Your task to perform on an android device: set the stopwatch Image 0: 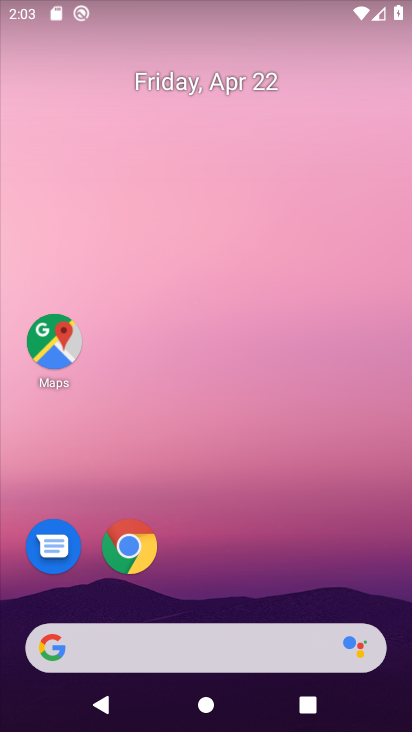
Step 0: drag from (238, 391) to (247, 266)
Your task to perform on an android device: set the stopwatch Image 1: 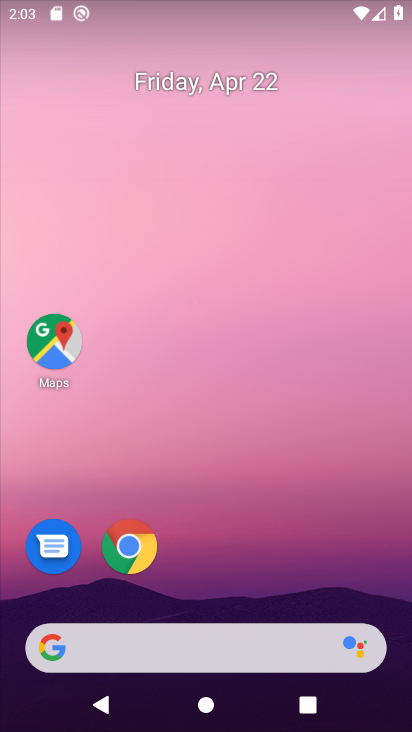
Step 1: drag from (217, 502) to (87, 148)
Your task to perform on an android device: set the stopwatch Image 2: 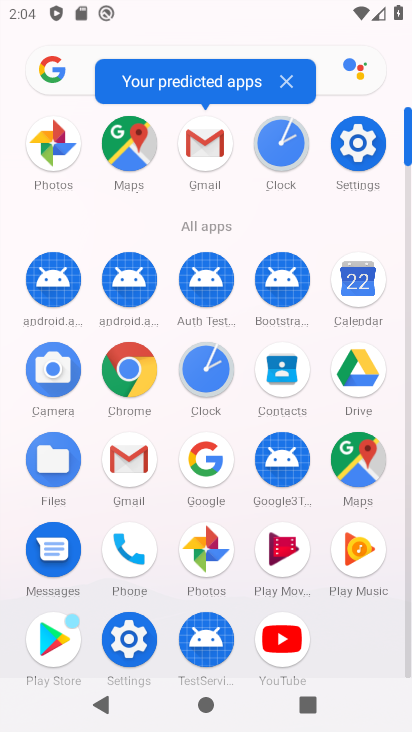
Step 2: click (358, 137)
Your task to perform on an android device: set the stopwatch Image 3: 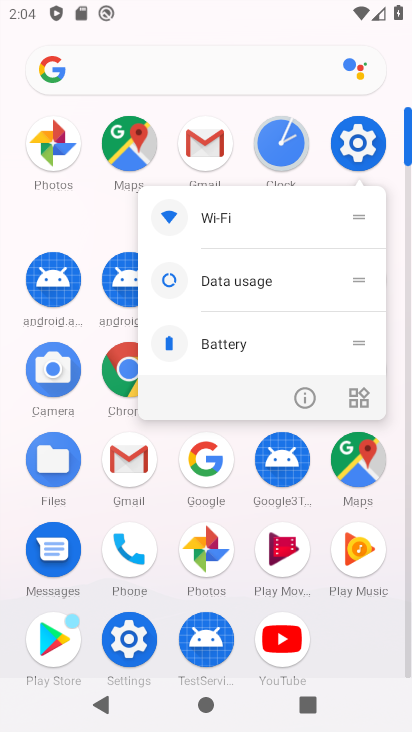
Step 3: click (350, 650)
Your task to perform on an android device: set the stopwatch Image 4: 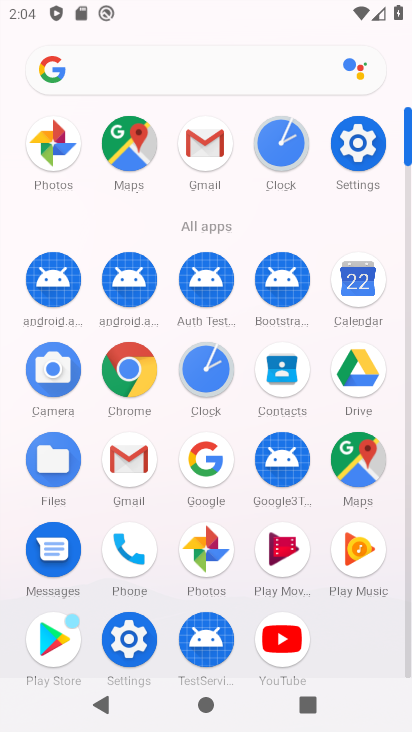
Step 4: click (210, 377)
Your task to perform on an android device: set the stopwatch Image 5: 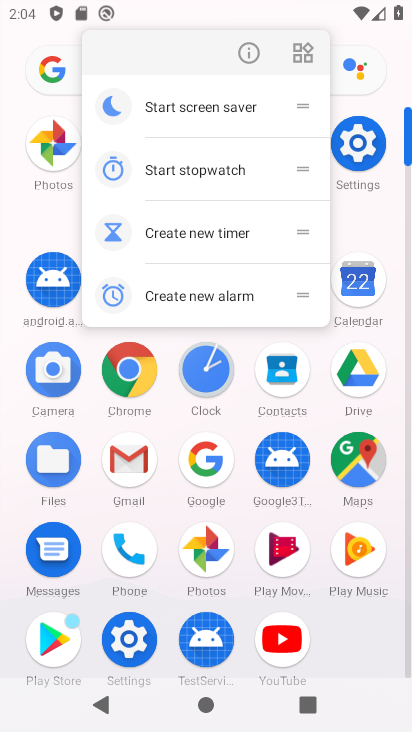
Step 5: click (246, 72)
Your task to perform on an android device: set the stopwatch Image 6: 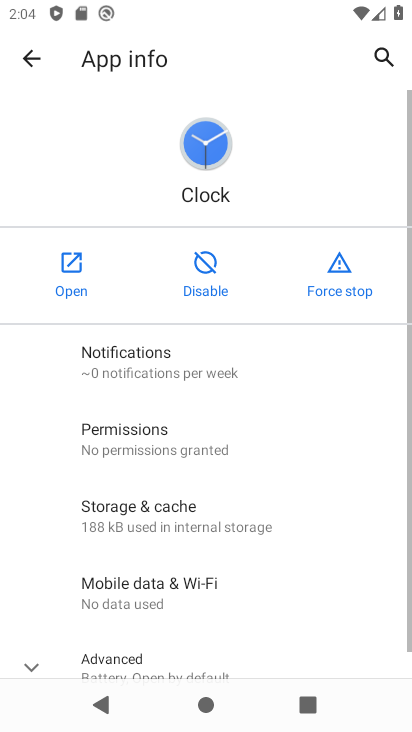
Step 6: click (76, 277)
Your task to perform on an android device: set the stopwatch Image 7: 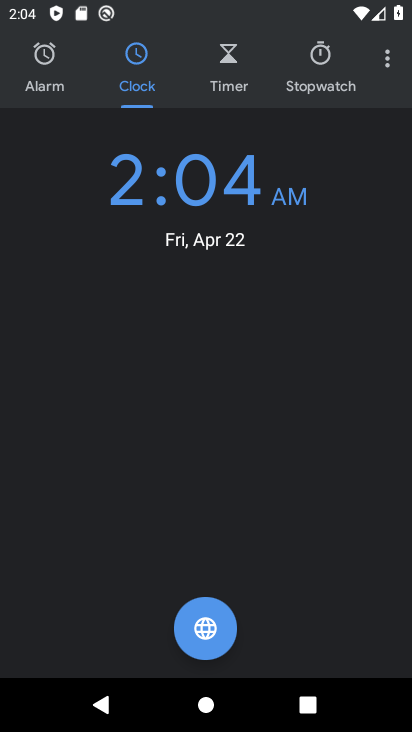
Step 7: click (315, 84)
Your task to perform on an android device: set the stopwatch Image 8: 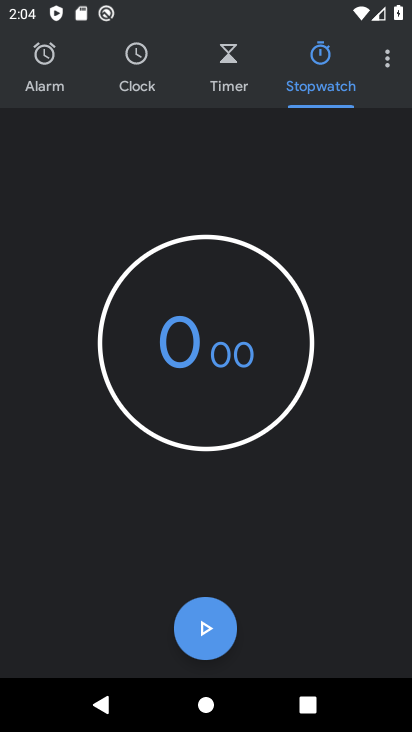
Step 8: click (203, 640)
Your task to perform on an android device: set the stopwatch Image 9: 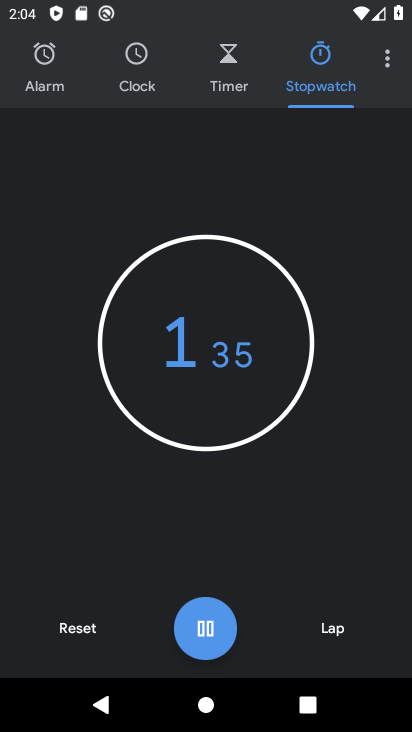
Step 9: task complete